Your task to perform on an android device: Go to Yahoo.com Image 0: 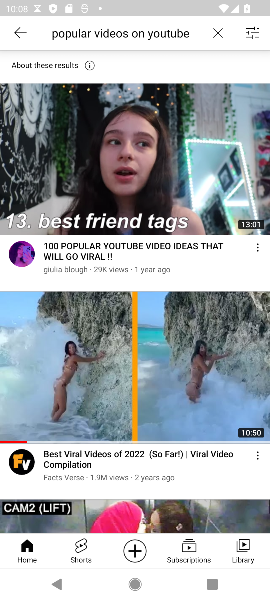
Step 0: press home button
Your task to perform on an android device: Go to Yahoo.com Image 1: 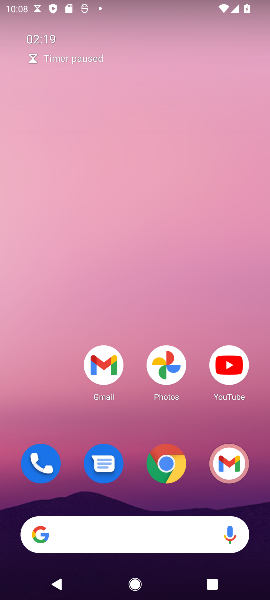
Step 1: click (70, 539)
Your task to perform on an android device: Go to Yahoo.com Image 2: 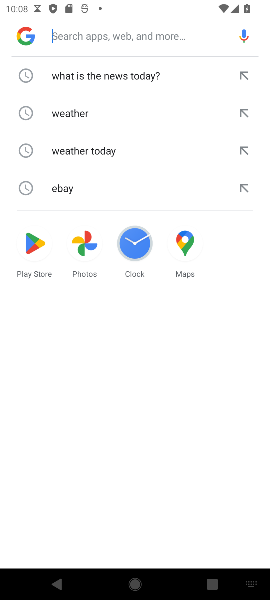
Step 2: type "Yahoo.com"
Your task to perform on an android device: Go to Yahoo.com Image 3: 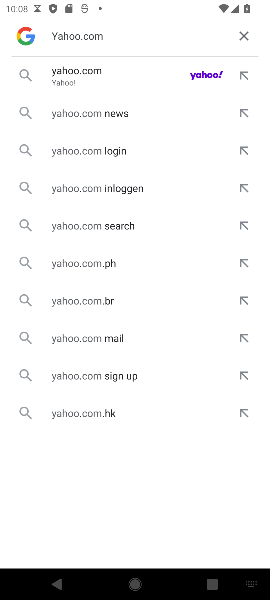
Step 3: click (88, 70)
Your task to perform on an android device: Go to Yahoo.com Image 4: 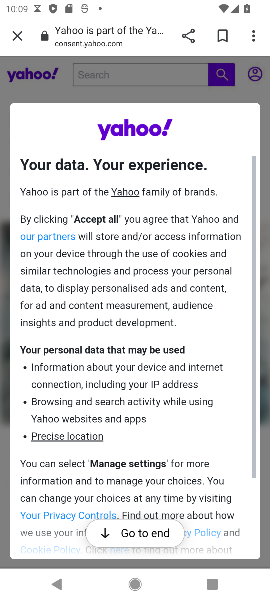
Step 4: task complete